Your task to perform on an android device: Play the last video I watched on Youtube Image 0: 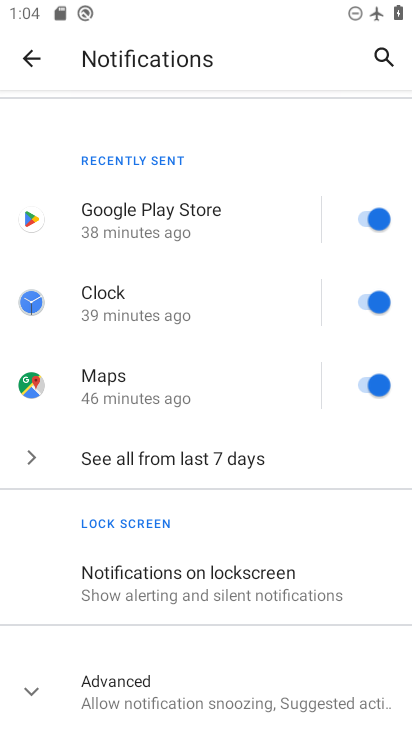
Step 0: press home button
Your task to perform on an android device: Play the last video I watched on Youtube Image 1: 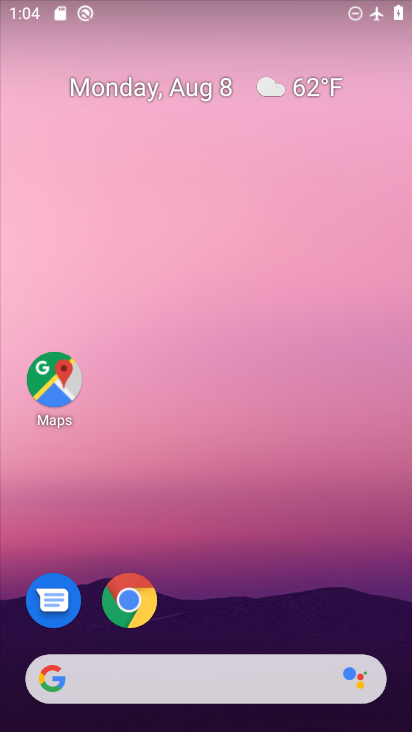
Step 1: drag from (213, 612) to (191, 146)
Your task to perform on an android device: Play the last video I watched on Youtube Image 2: 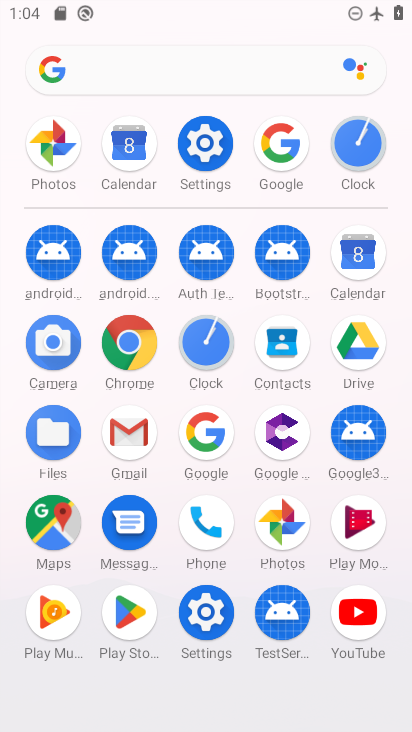
Step 2: click (351, 632)
Your task to perform on an android device: Play the last video I watched on Youtube Image 3: 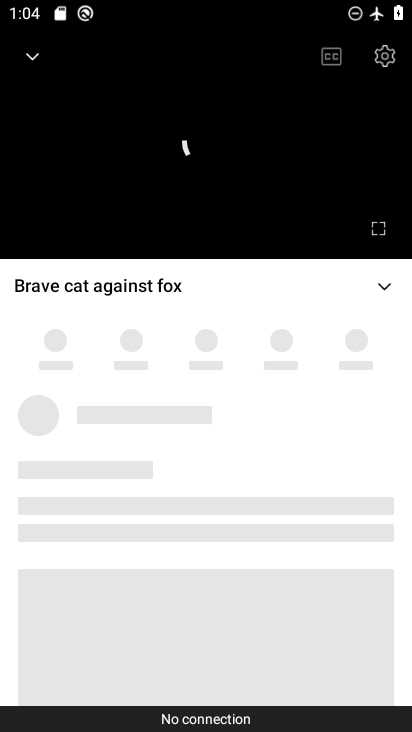
Step 3: click (211, 130)
Your task to perform on an android device: Play the last video I watched on Youtube Image 4: 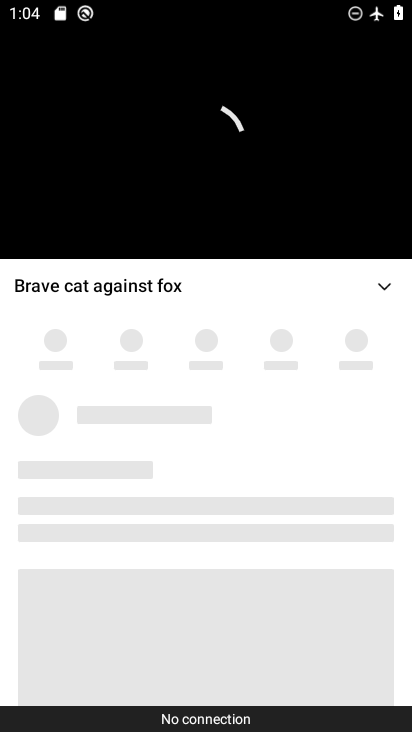
Step 4: click (29, 51)
Your task to perform on an android device: Play the last video I watched on Youtube Image 5: 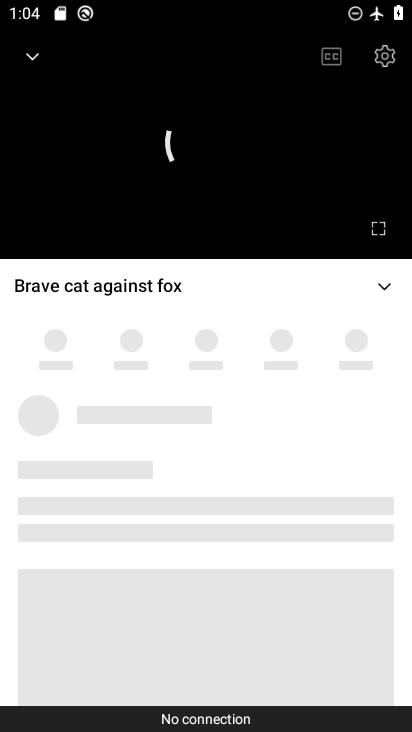
Step 5: click (208, 151)
Your task to perform on an android device: Play the last video I watched on Youtube Image 6: 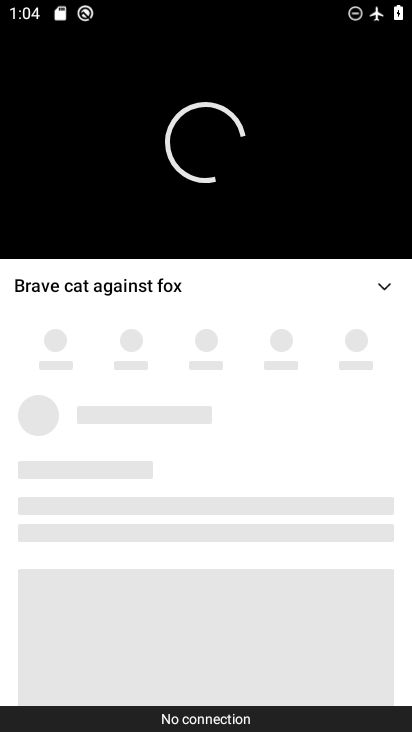
Step 6: press back button
Your task to perform on an android device: Play the last video I watched on Youtube Image 7: 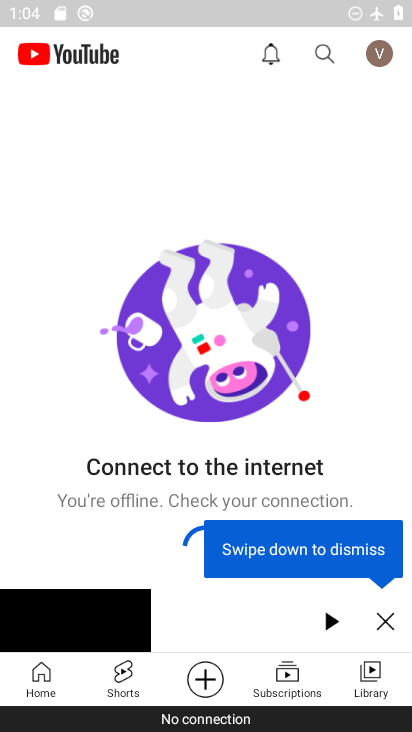
Step 7: click (386, 627)
Your task to perform on an android device: Play the last video I watched on Youtube Image 8: 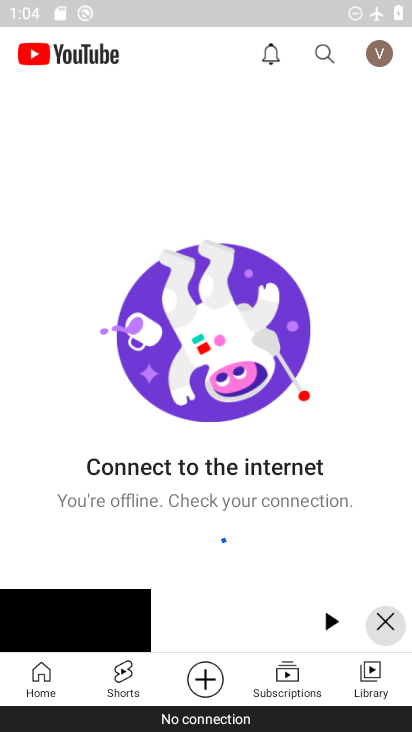
Step 8: click (371, 683)
Your task to perform on an android device: Play the last video I watched on Youtube Image 9: 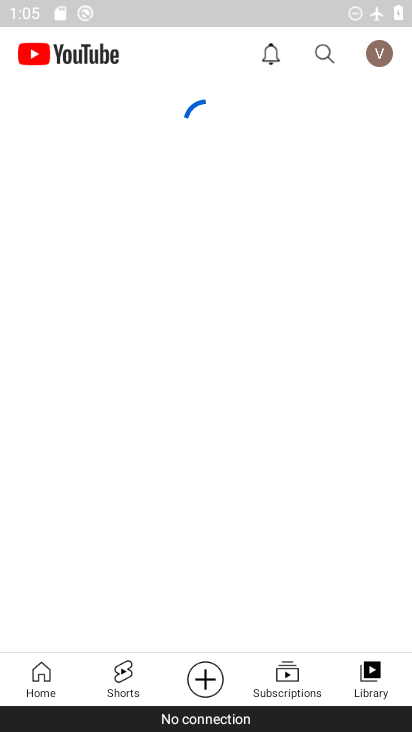
Step 9: task complete